Your task to perform on an android device: Search for jbl charge 4 on ebay.com, select the first entry, add it to the cart, then select checkout. Image 0: 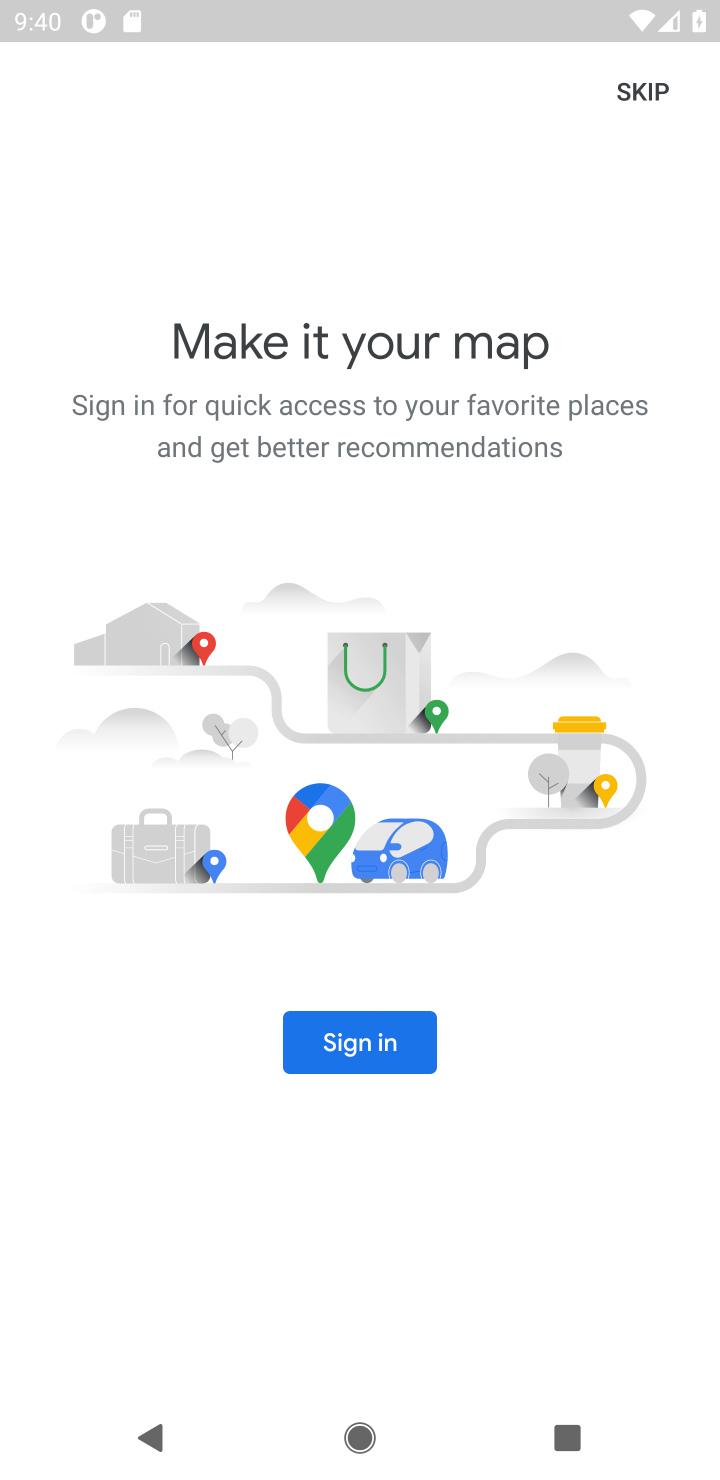
Step 0: click (631, 83)
Your task to perform on an android device: Search for jbl charge 4 on ebay.com, select the first entry, add it to the cart, then select checkout. Image 1: 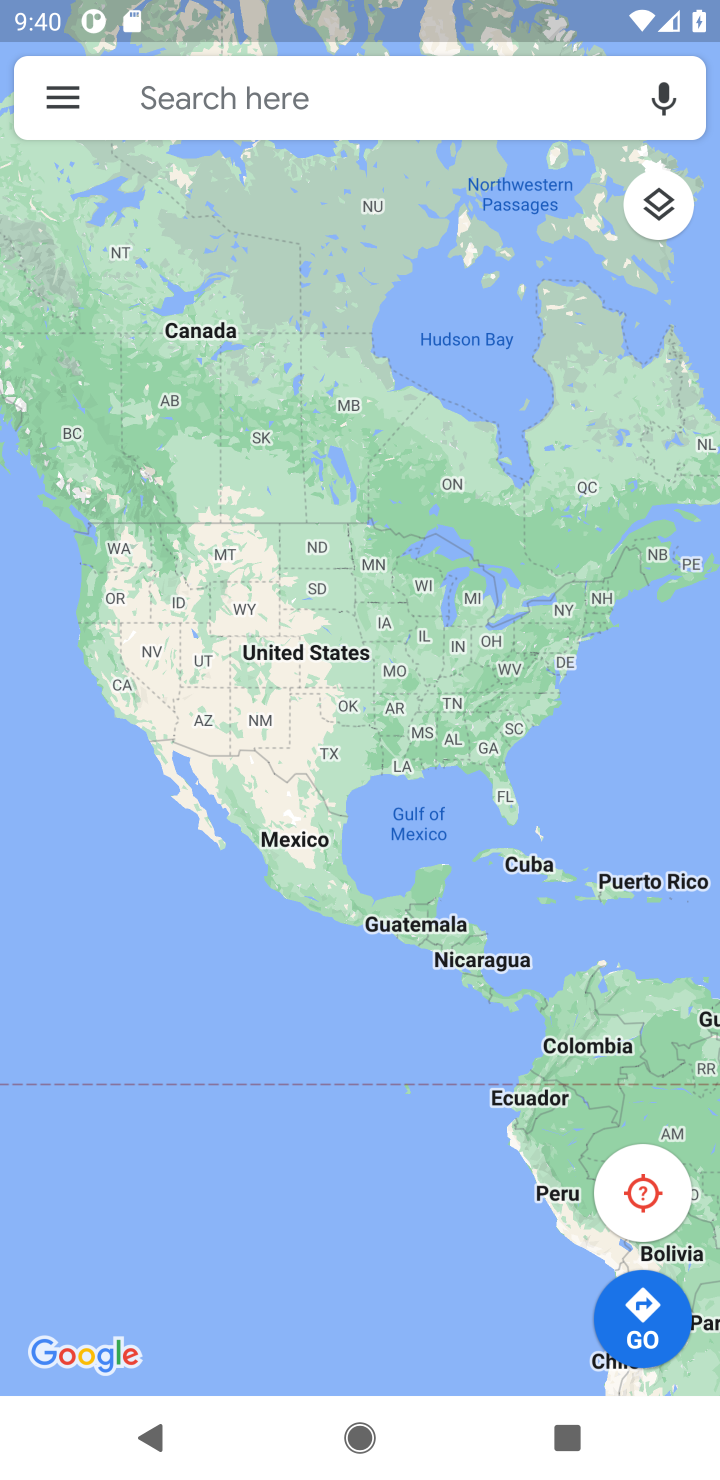
Step 1: press home button
Your task to perform on an android device: Search for jbl charge 4 on ebay.com, select the first entry, add it to the cart, then select checkout. Image 2: 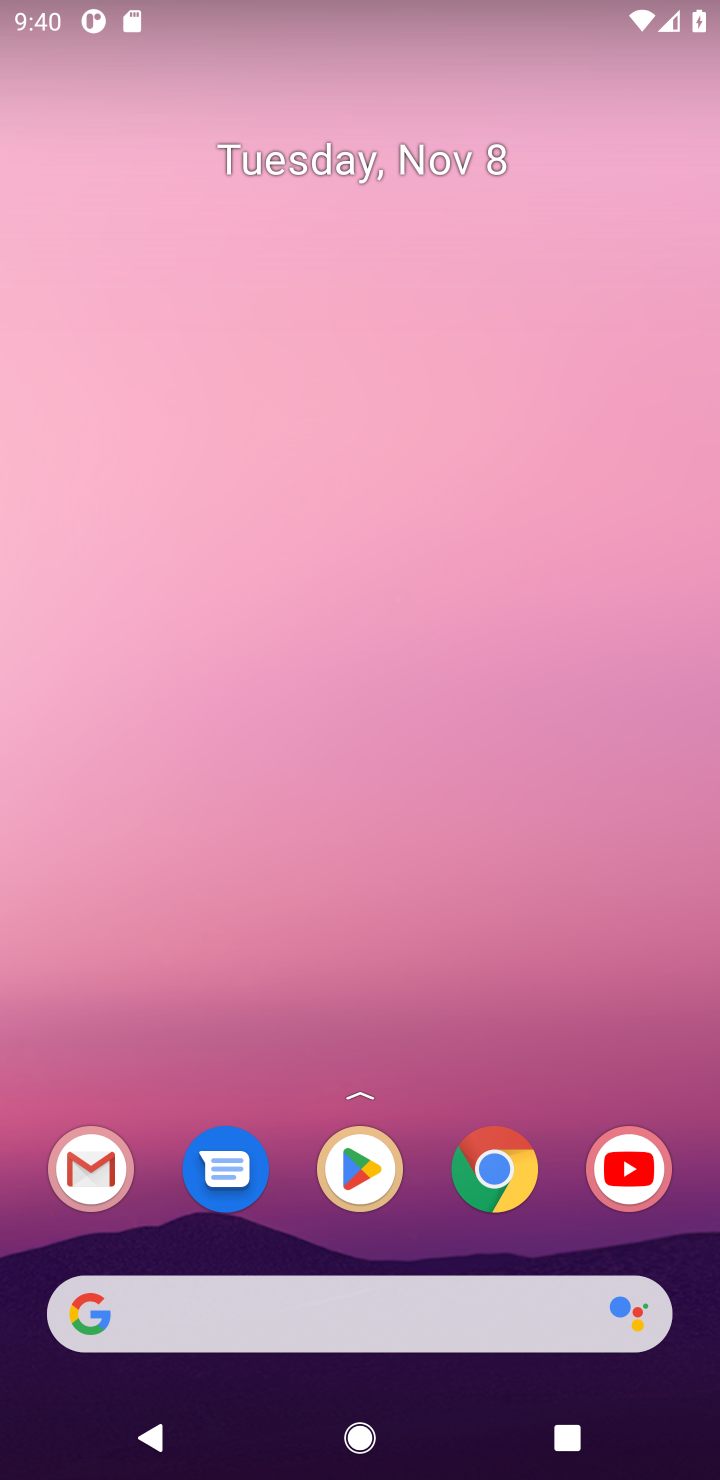
Step 2: click (495, 1172)
Your task to perform on an android device: Search for jbl charge 4 on ebay.com, select the first entry, add it to the cart, then select checkout. Image 3: 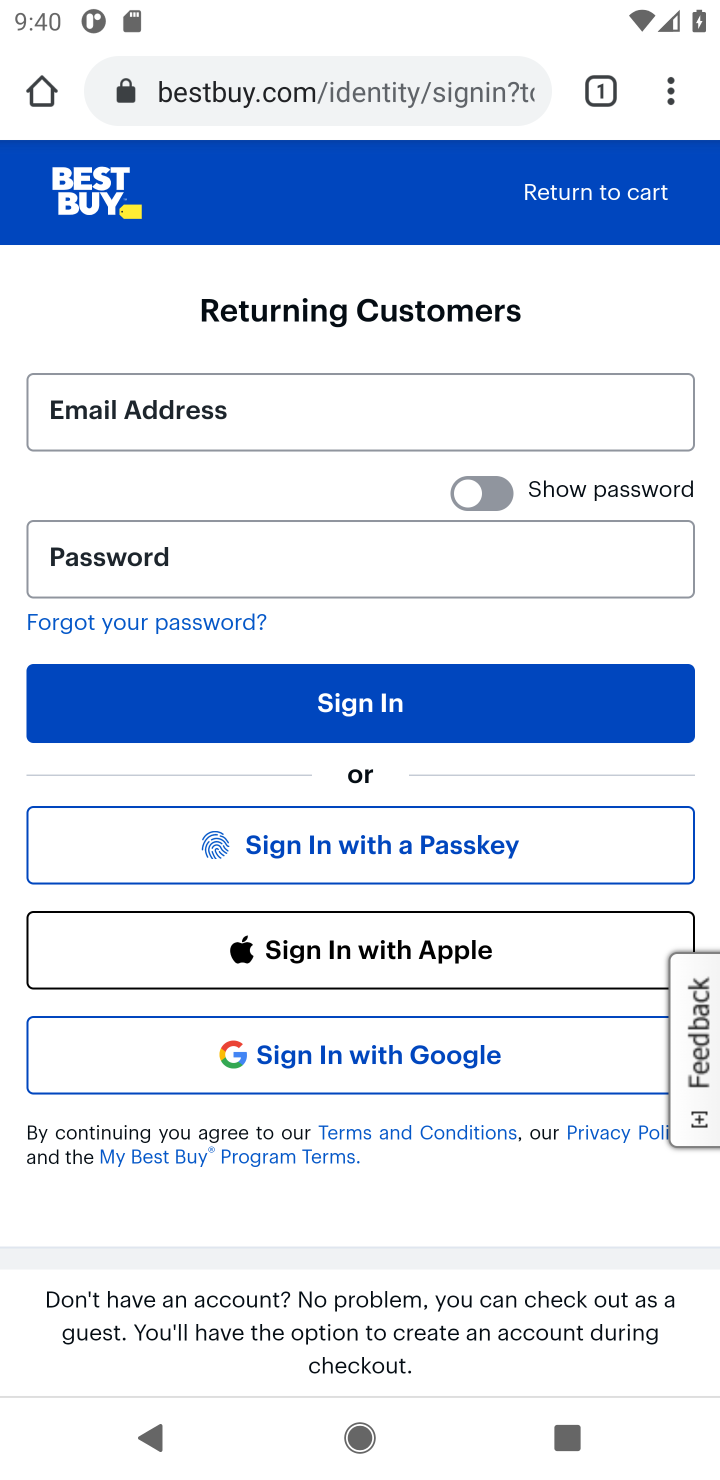
Step 3: click (405, 76)
Your task to perform on an android device: Search for jbl charge 4 on ebay.com, select the first entry, add it to the cart, then select checkout. Image 4: 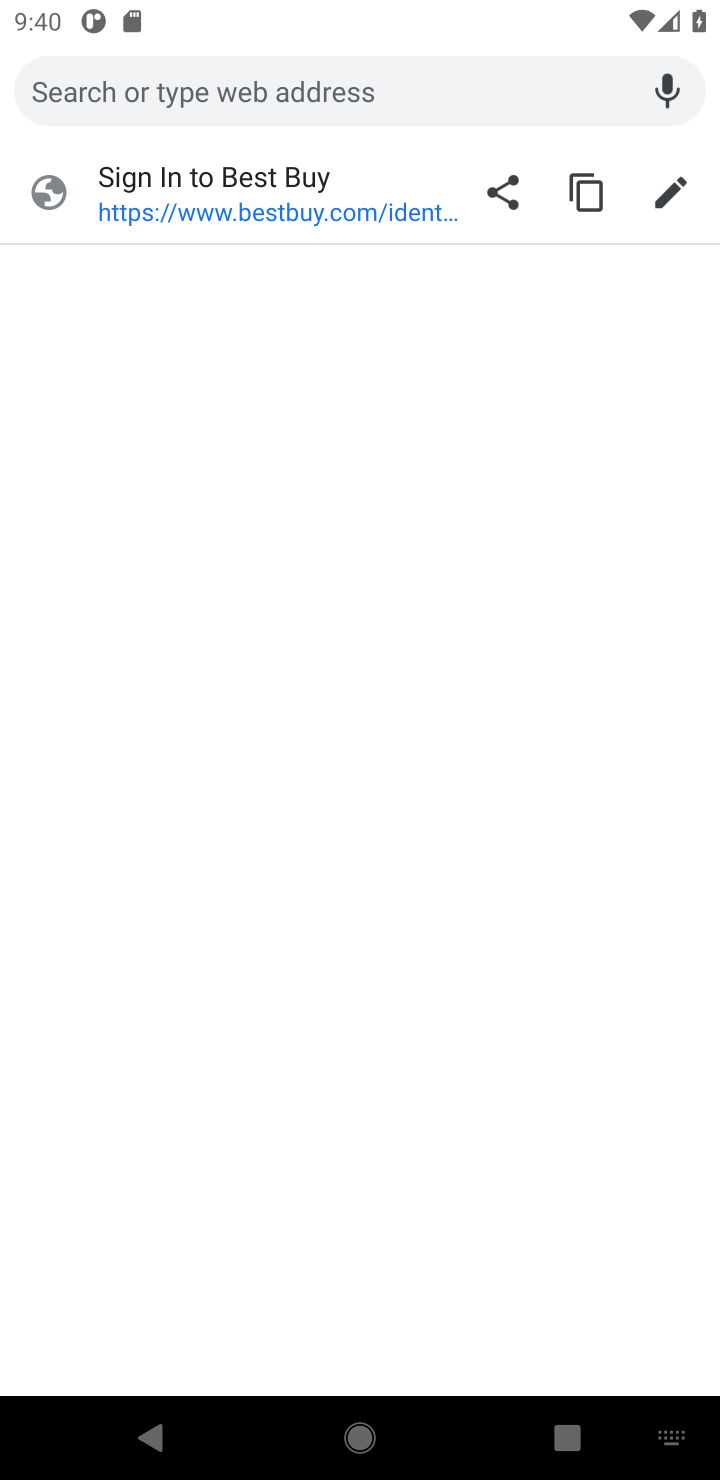
Step 4: type "ebay.com"
Your task to perform on an android device: Search for jbl charge 4 on ebay.com, select the first entry, add it to the cart, then select checkout. Image 5: 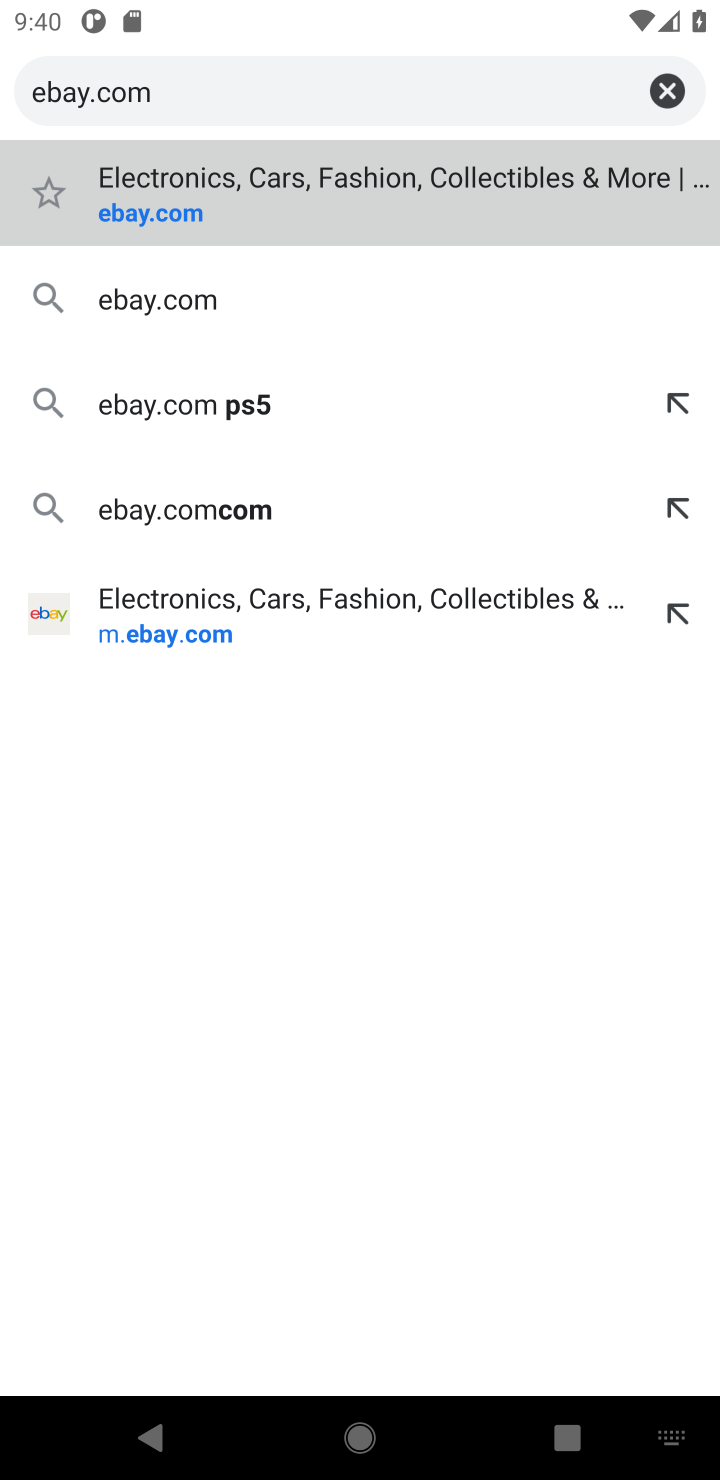
Step 5: press enter
Your task to perform on an android device: Search for jbl charge 4 on ebay.com, select the first entry, add it to the cart, then select checkout. Image 6: 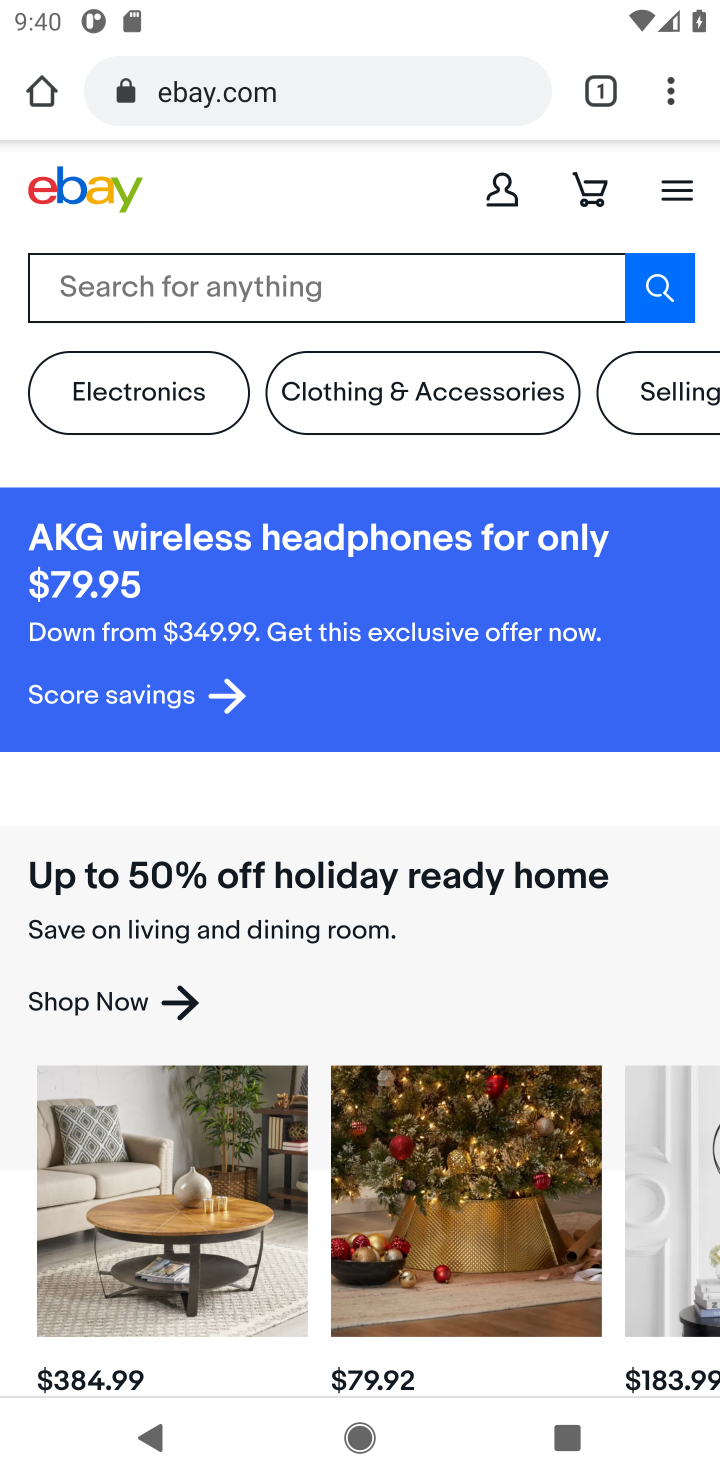
Step 6: click (273, 299)
Your task to perform on an android device: Search for jbl charge 4 on ebay.com, select the first entry, add it to the cart, then select checkout. Image 7: 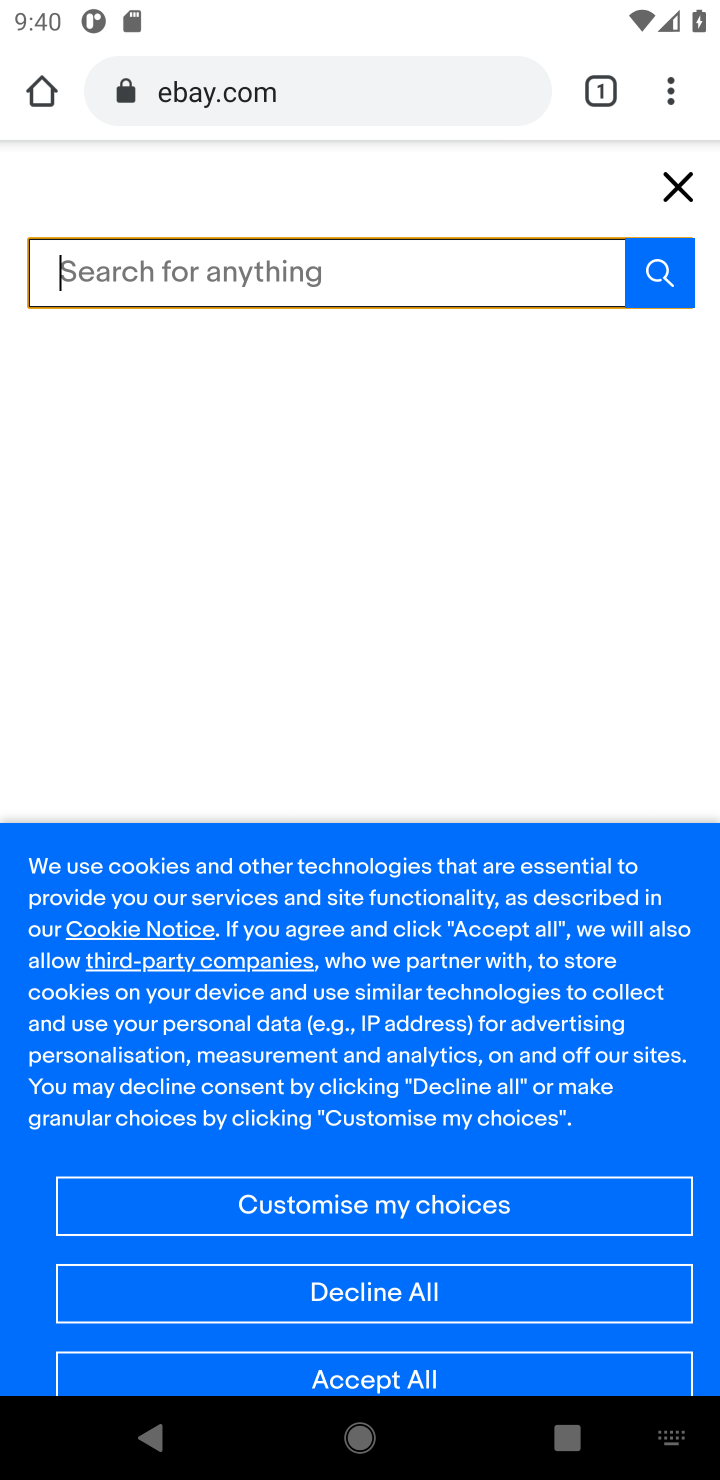
Step 7: type "jbl charge 4"
Your task to perform on an android device: Search for jbl charge 4 on ebay.com, select the first entry, add it to the cart, then select checkout. Image 8: 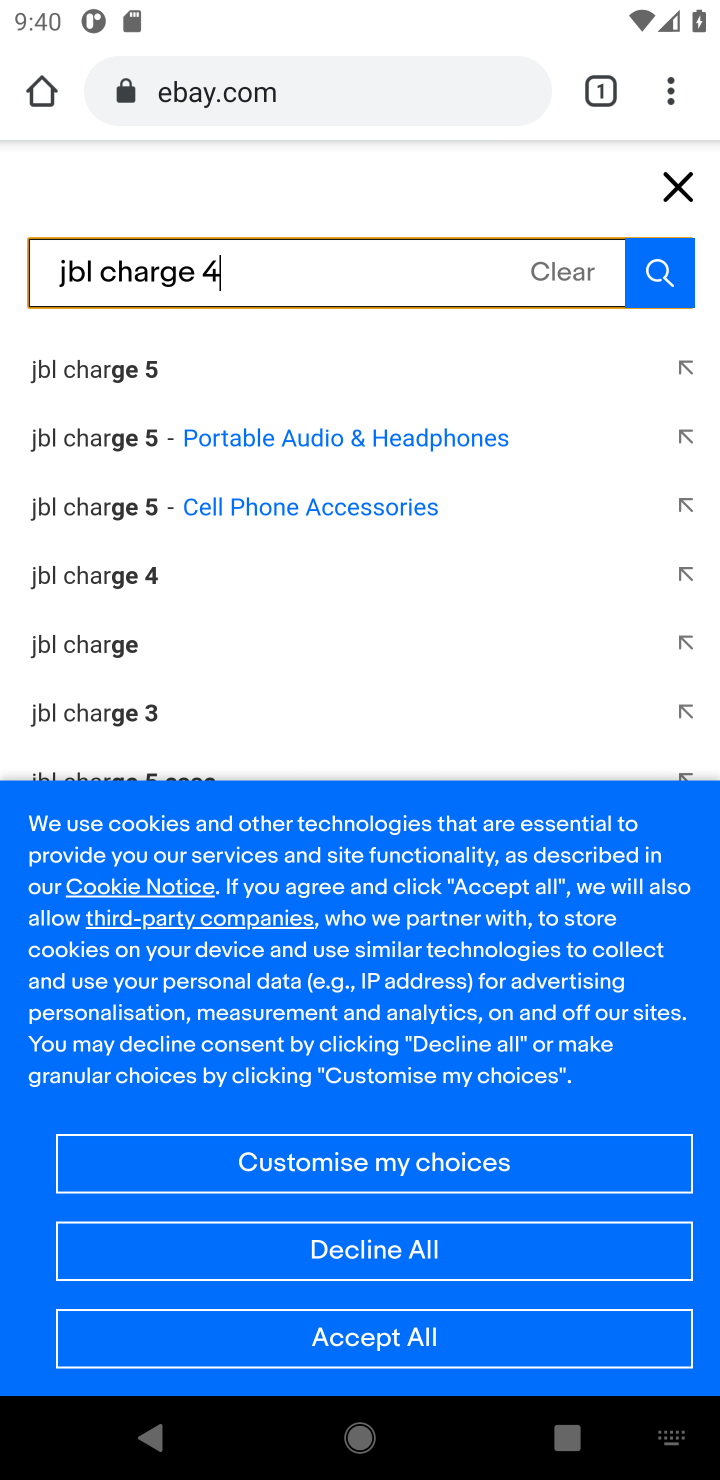
Step 8: press enter
Your task to perform on an android device: Search for jbl charge 4 on ebay.com, select the first entry, add it to the cart, then select checkout. Image 9: 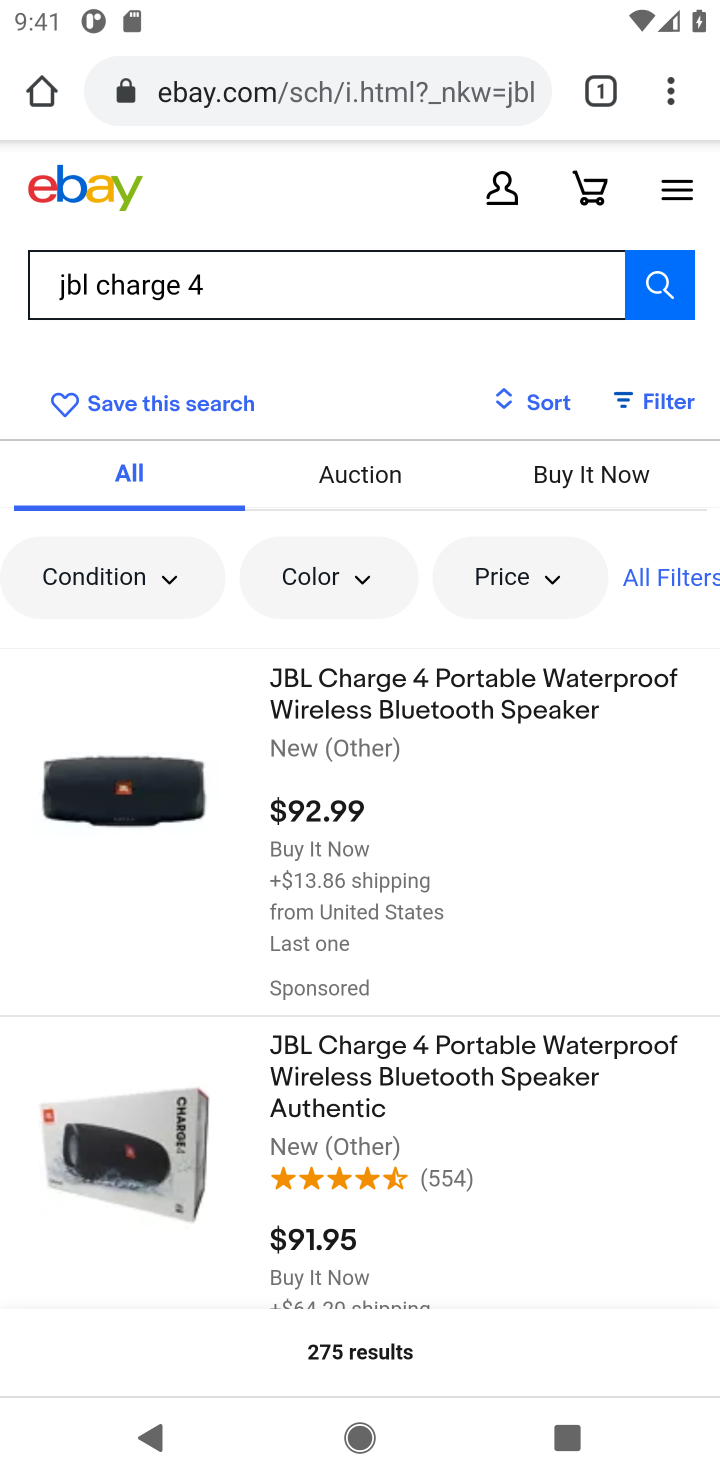
Step 9: click (133, 761)
Your task to perform on an android device: Search for jbl charge 4 on ebay.com, select the first entry, add it to the cart, then select checkout. Image 10: 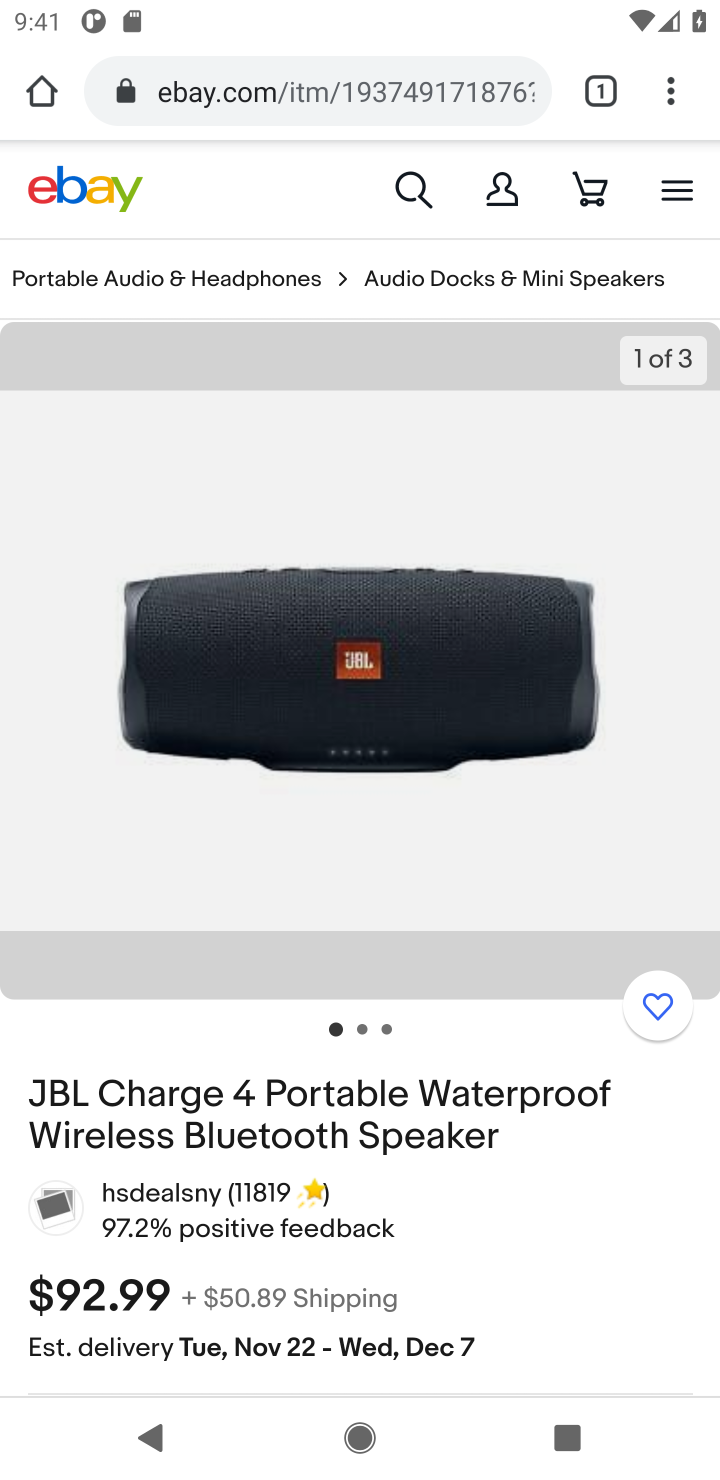
Step 10: drag from (559, 1116) to (352, 427)
Your task to perform on an android device: Search for jbl charge 4 on ebay.com, select the first entry, add it to the cart, then select checkout. Image 11: 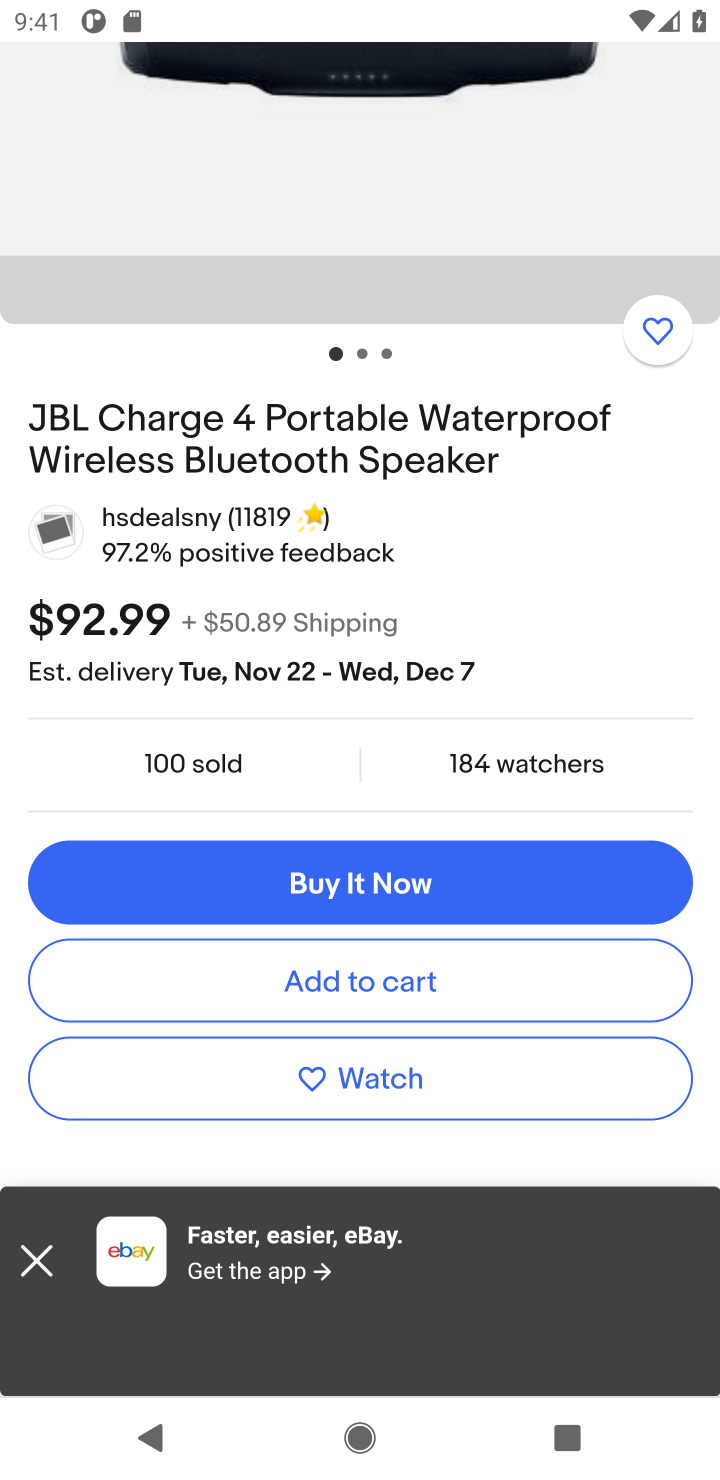
Step 11: click (381, 979)
Your task to perform on an android device: Search for jbl charge 4 on ebay.com, select the first entry, add it to the cart, then select checkout. Image 12: 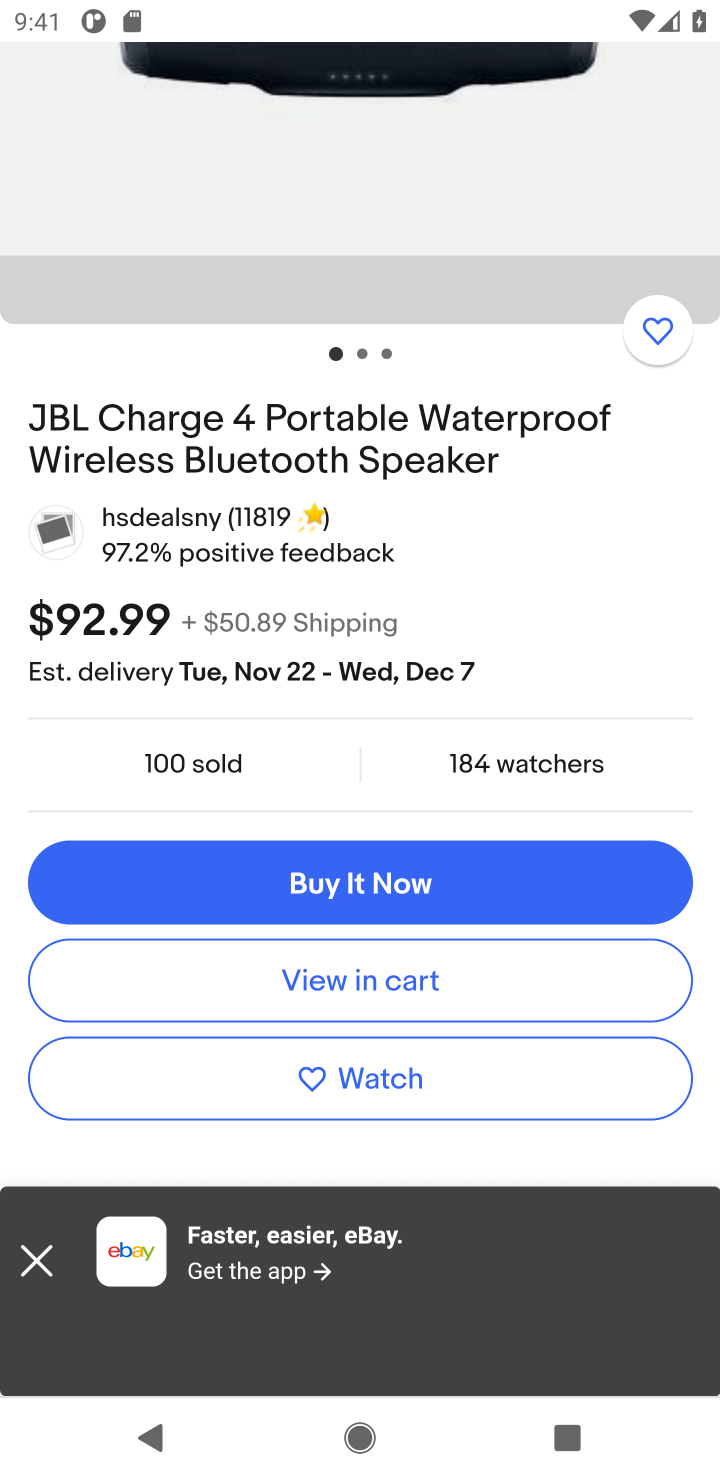
Step 12: click (381, 979)
Your task to perform on an android device: Search for jbl charge 4 on ebay.com, select the first entry, add it to the cart, then select checkout. Image 13: 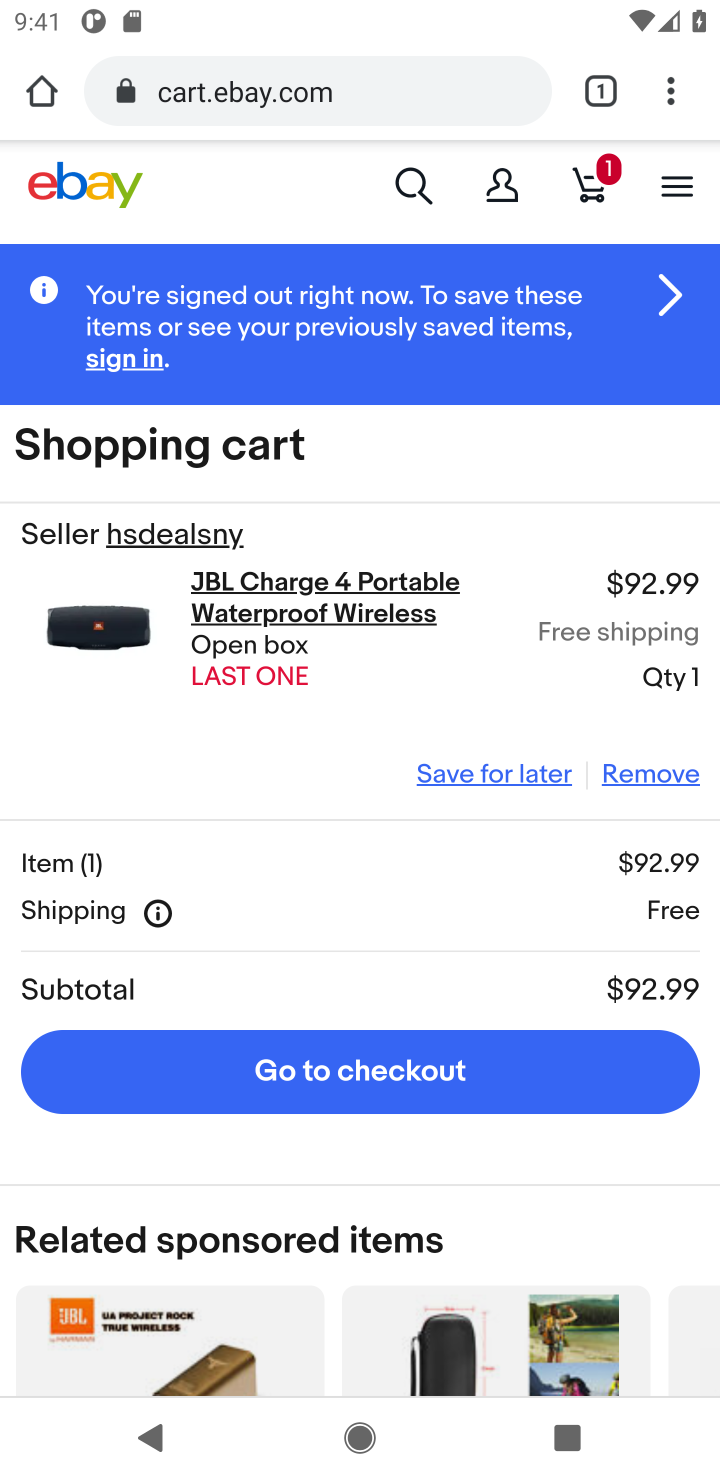
Step 13: click (435, 1066)
Your task to perform on an android device: Search for jbl charge 4 on ebay.com, select the first entry, add it to the cart, then select checkout. Image 14: 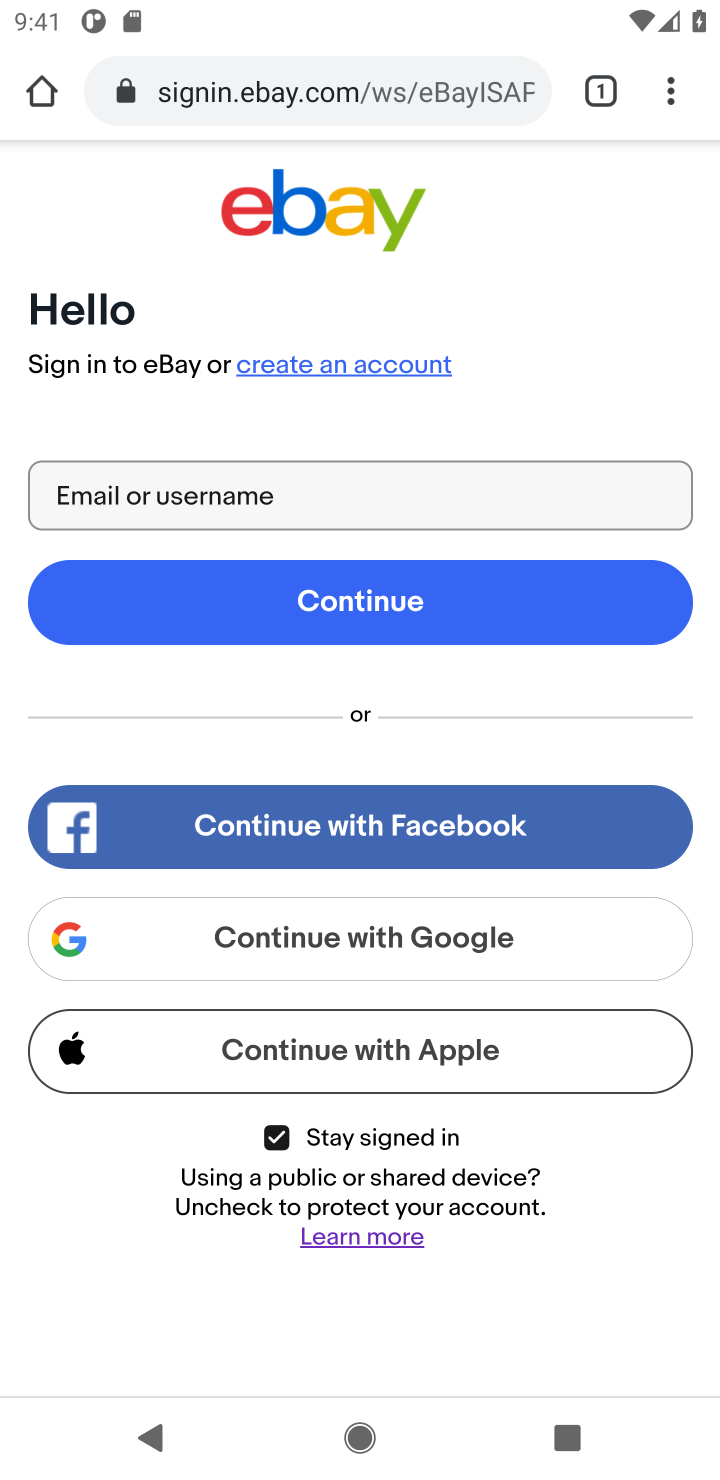
Step 14: task complete